Your task to perform on an android device: Open Reddit.com Image 0: 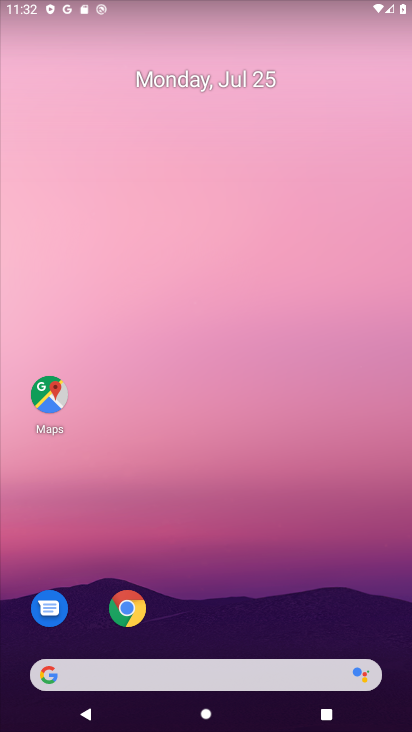
Step 0: click (176, 675)
Your task to perform on an android device: Open Reddit.com Image 1: 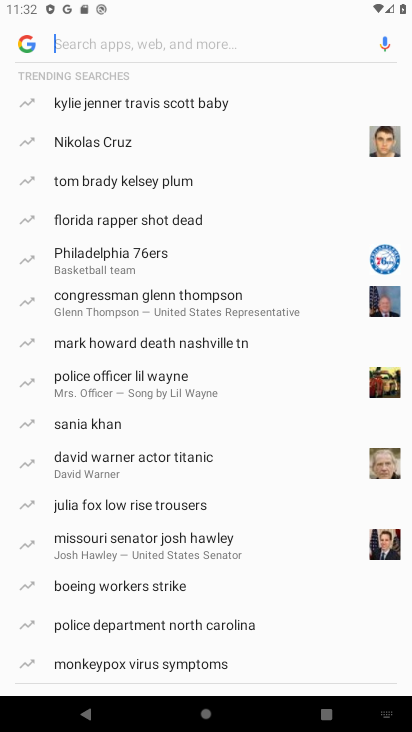
Step 1: type "reddit.com"
Your task to perform on an android device: Open Reddit.com Image 2: 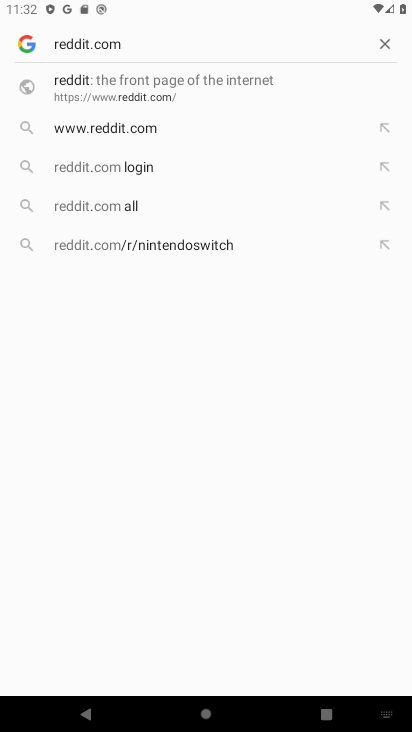
Step 2: click (173, 82)
Your task to perform on an android device: Open Reddit.com Image 3: 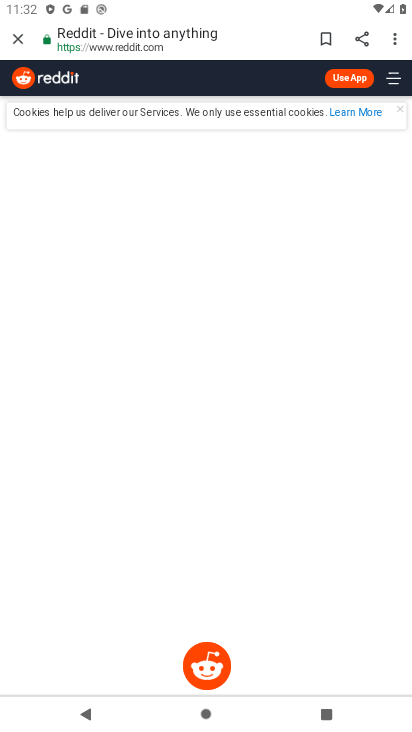
Step 3: task complete